Your task to perform on an android device: Search for "bose soundsport free" on walmart, select the first entry, and add it to the cart. Image 0: 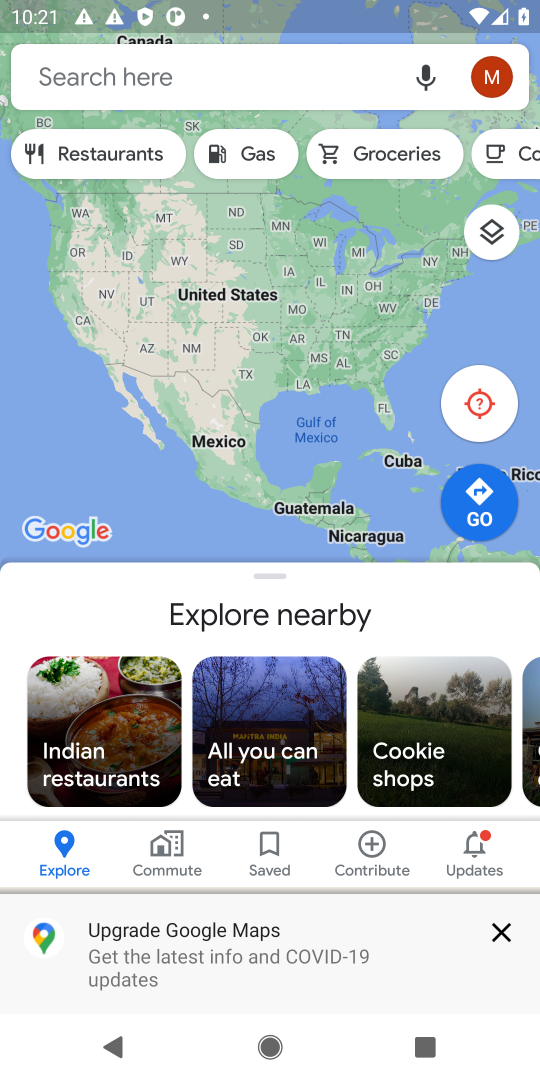
Step 0: press home button
Your task to perform on an android device: Search for "bose soundsport free" on walmart, select the first entry, and add it to the cart. Image 1: 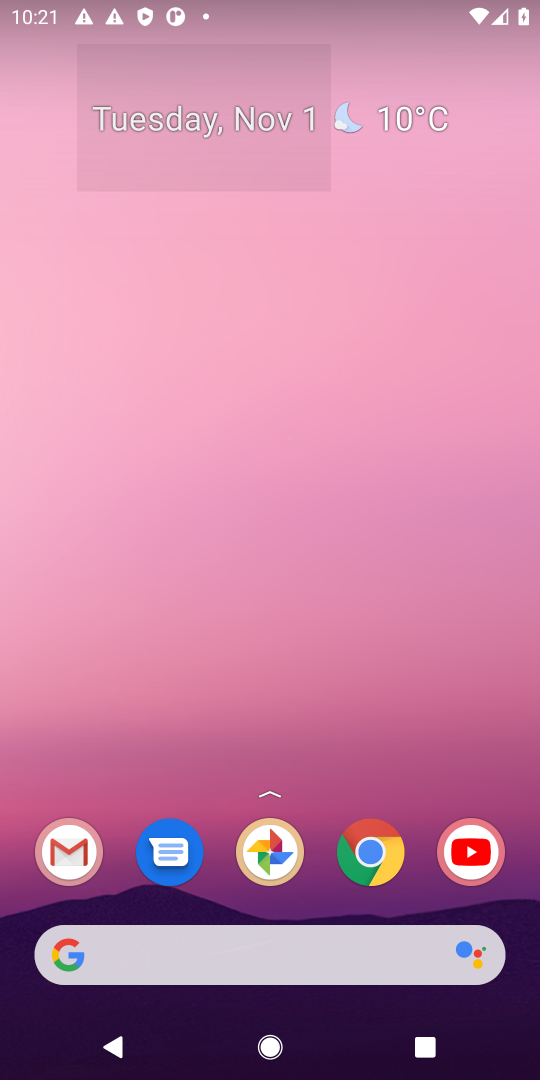
Step 1: click (55, 949)
Your task to perform on an android device: Search for "bose soundsport free" on walmart, select the first entry, and add it to the cart. Image 2: 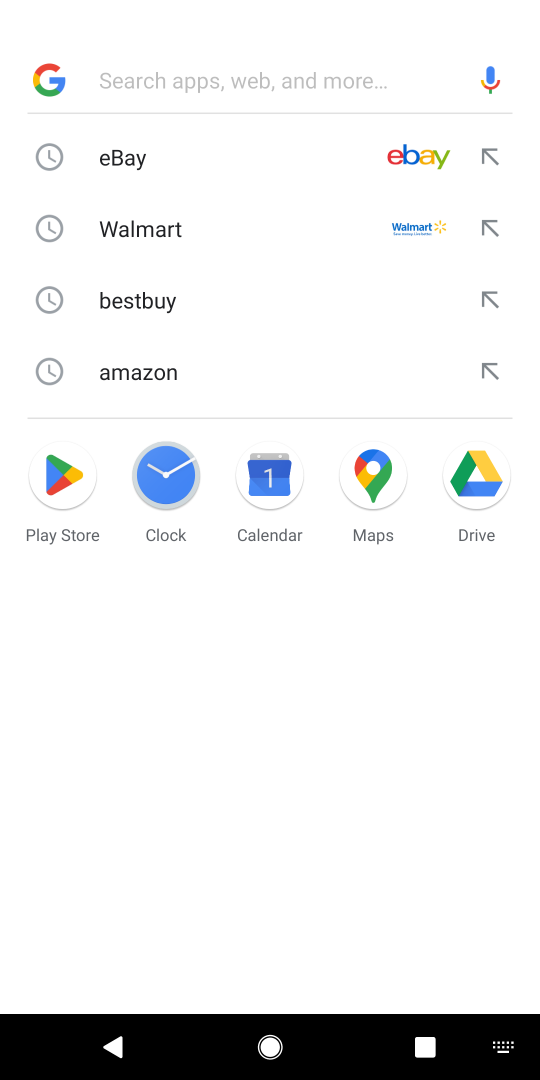
Step 2: click (108, 231)
Your task to perform on an android device: Search for "bose soundsport free" on walmart, select the first entry, and add it to the cart. Image 3: 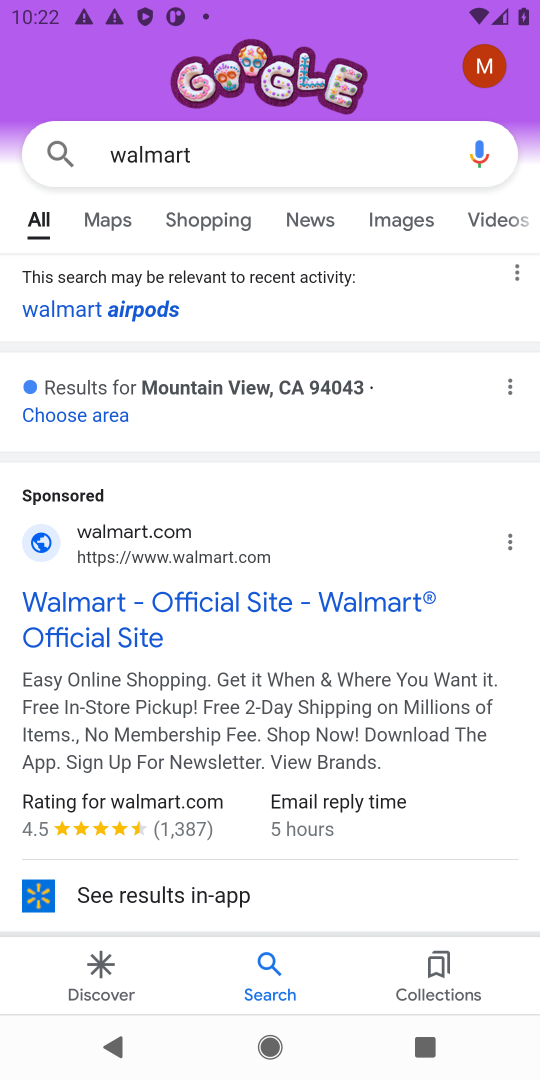
Step 3: drag from (415, 845) to (358, 490)
Your task to perform on an android device: Search for "bose soundsport free" on walmart, select the first entry, and add it to the cart. Image 4: 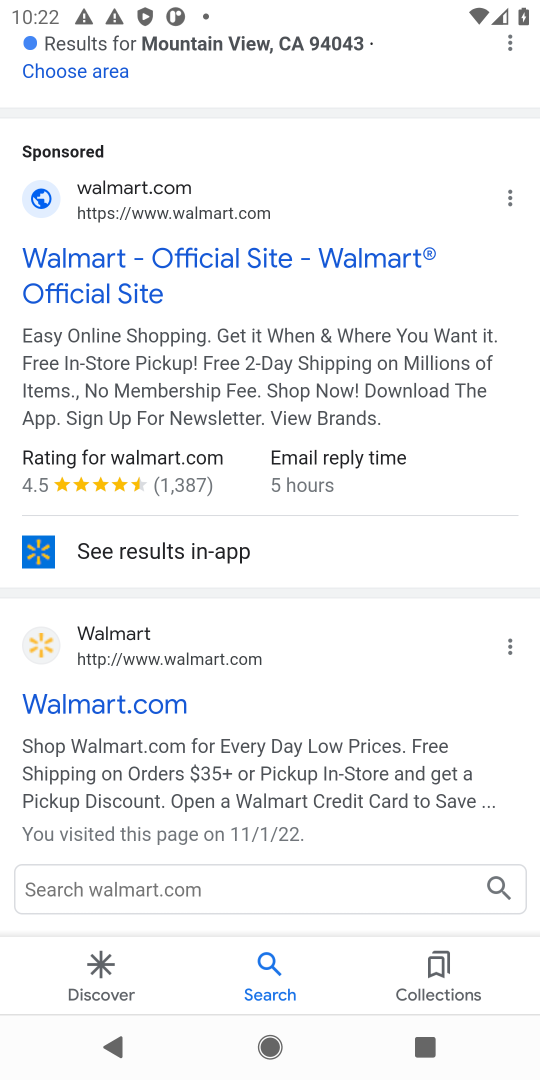
Step 4: click (148, 698)
Your task to perform on an android device: Search for "bose soundsport free" on walmart, select the first entry, and add it to the cart. Image 5: 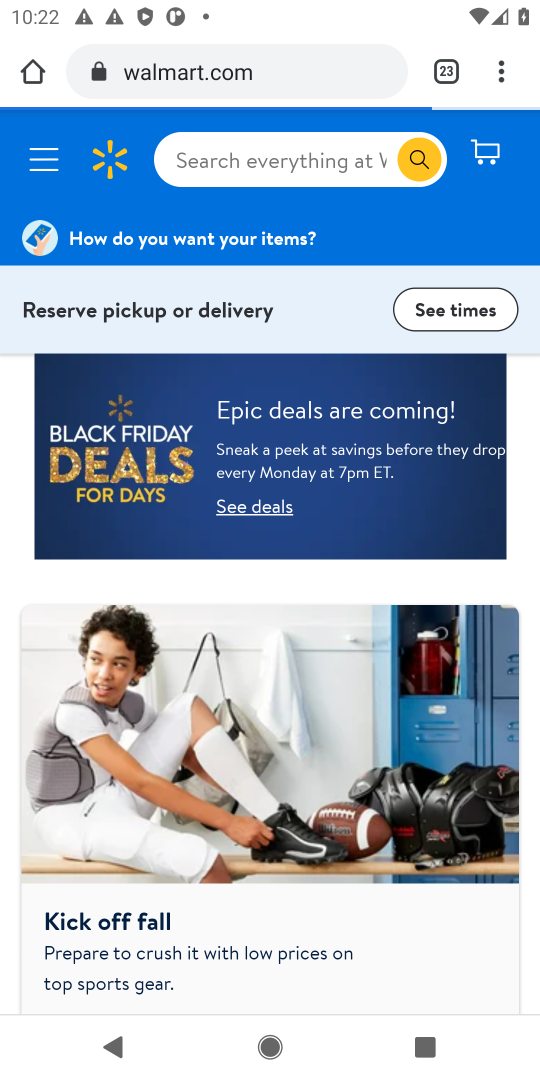
Step 5: click (210, 137)
Your task to perform on an android device: Search for "bose soundsport free" on walmart, select the first entry, and add it to the cart. Image 6: 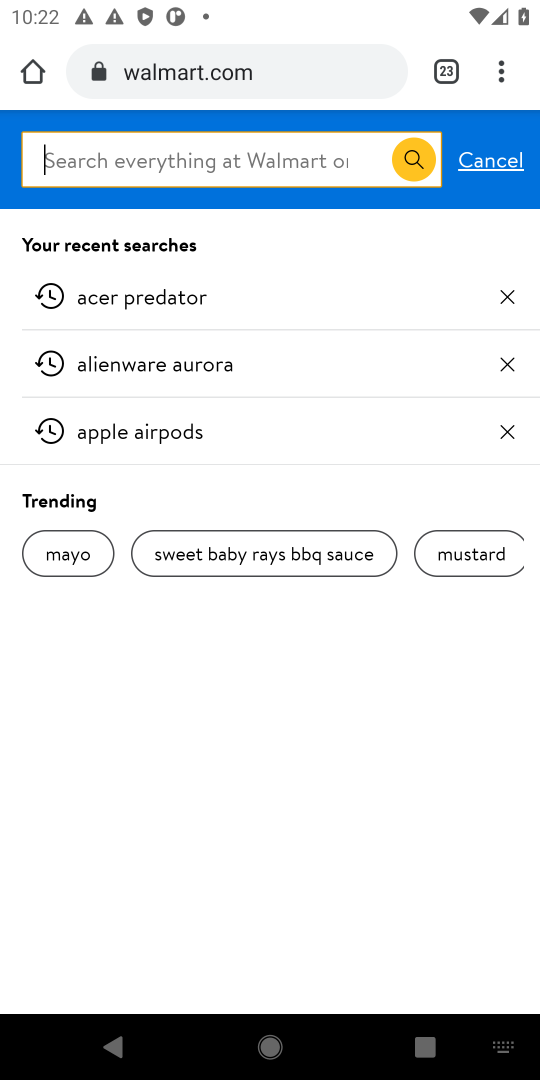
Step 6: type "bose soundsport free"
Your task to perform on an android device: Search for "bose soundsport free" on walmart, select the first entry, and add it to the cart. Image 7: 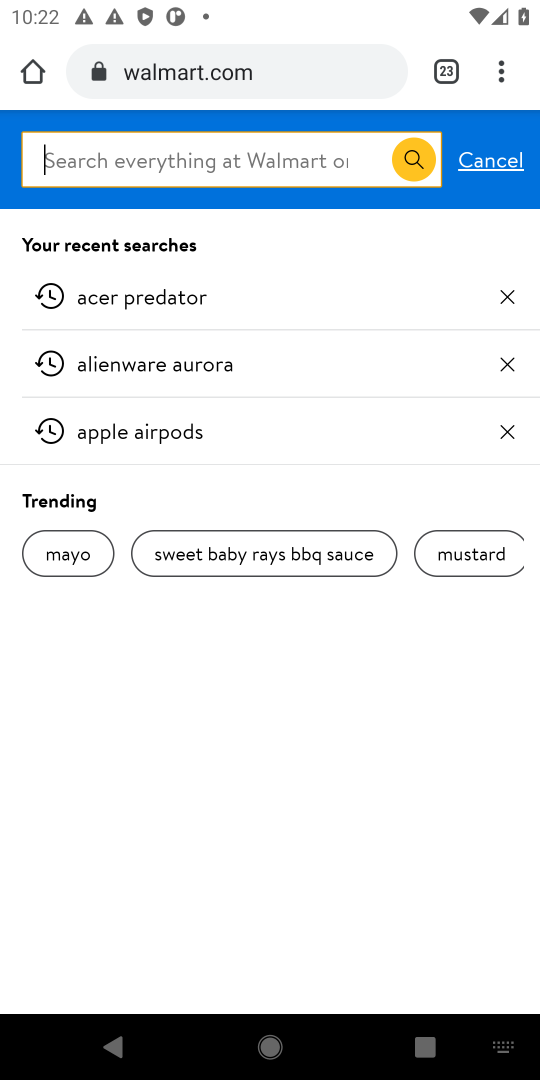
Step 7: click (201, 145)
Your task to perform on an android device: Search for "bose soundsport free" on walmart, select the first entry, and add it to the cart. Image 8: 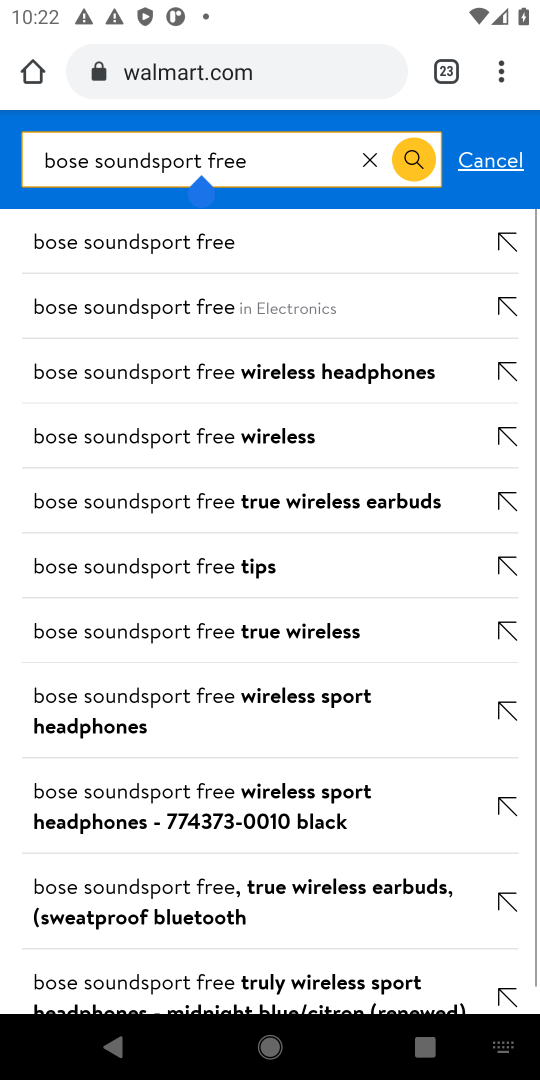
Step 8: press enter
Your task to perform on an android device: Search for "bose soundsport free" on walmart, select the first entry, and add it to the cart. Image 9: 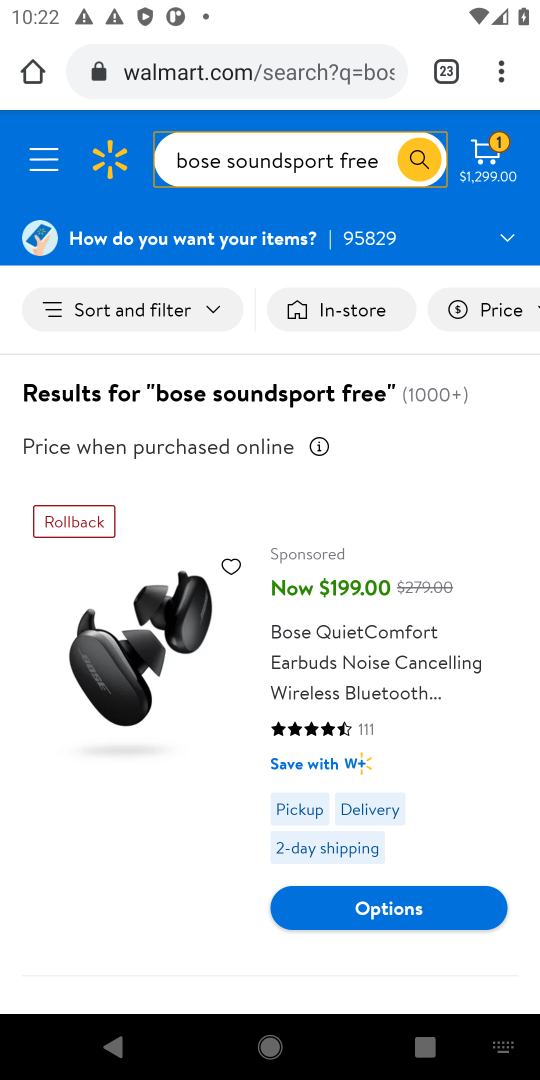
Step 9: drag from (479, 804) to (415, 301)
Your task to perform on an android device: Search for "bose soundsport free" on walmart, select the first entry, and add it to the cart. Image 10: 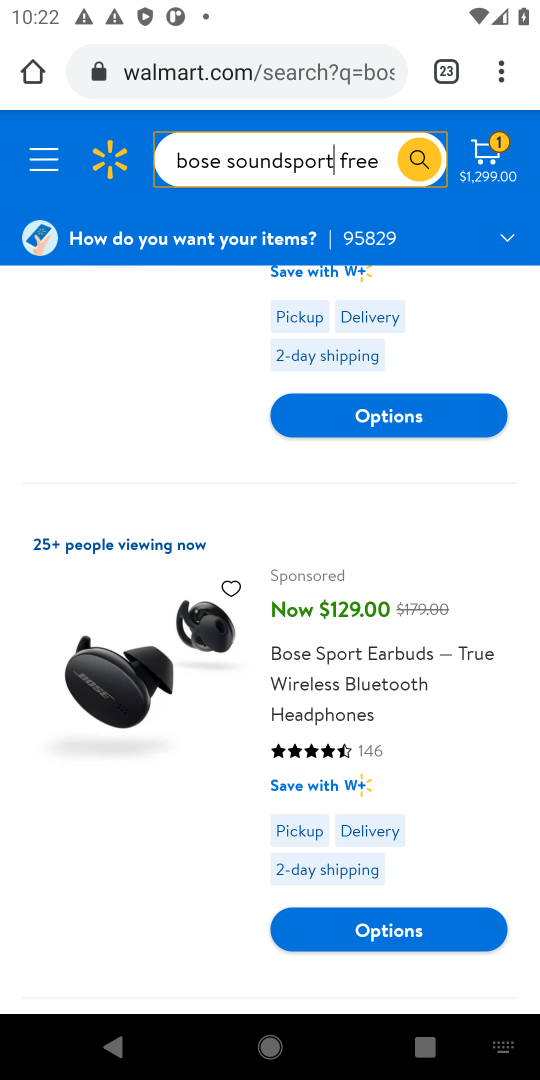
Step 10: click (366, 645)
Your task to perform on an android device: Search for "bose soundsport free" on walmart, select the first entry, and add it to the cart. Image 11: 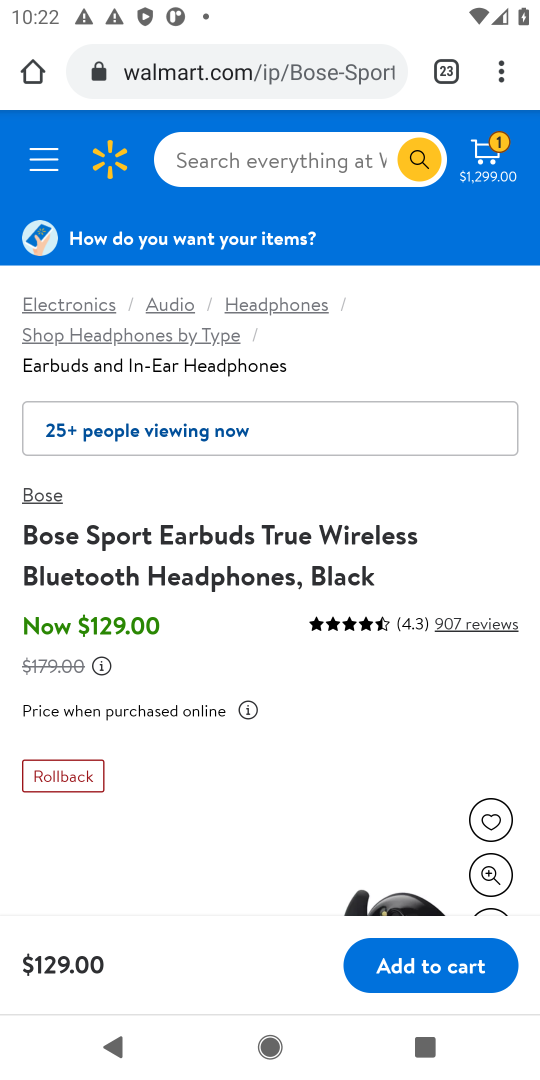
Step 11: click (454, 958)
Your task to perform on an android device: Search for "bose soundsport free" on walmart, select the first entry, and add it to the cart. Image 12: 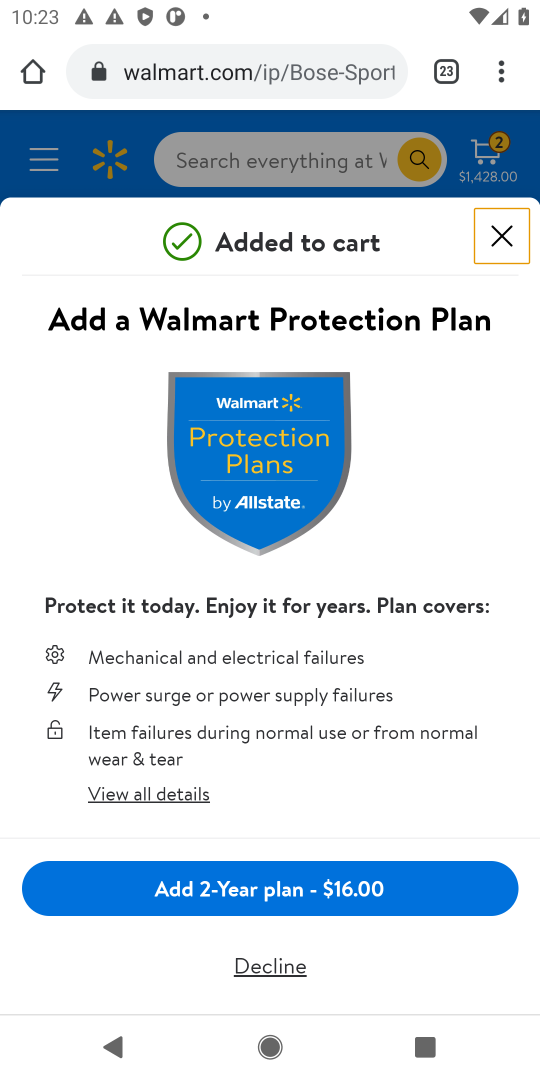
Step 12: task complete